Your task to perform on an android device: turn off wifi Image 0: 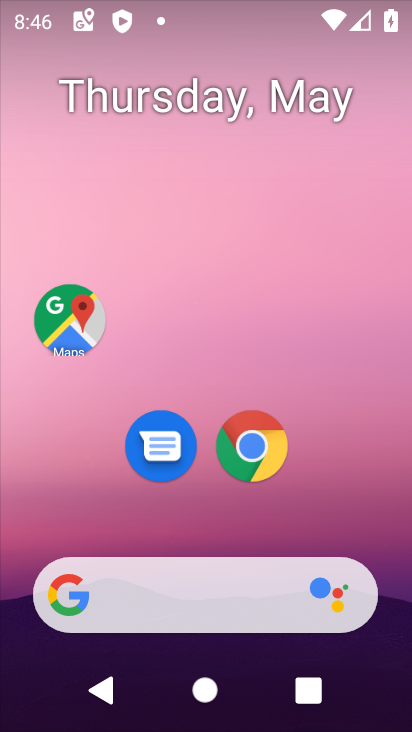
Step 0: drag from (398, 607) to (354, 13)
Your task to perform on an android device: turn off wifi Image 1: 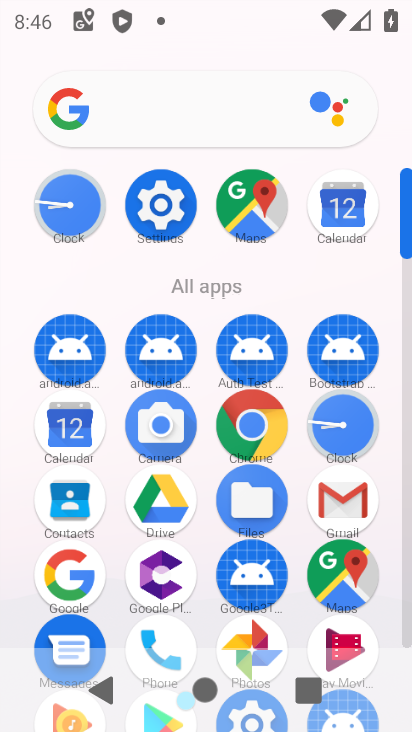
Step 1: click (408, 620)
Your task to perform on an android device: turn off wifi Image 2: 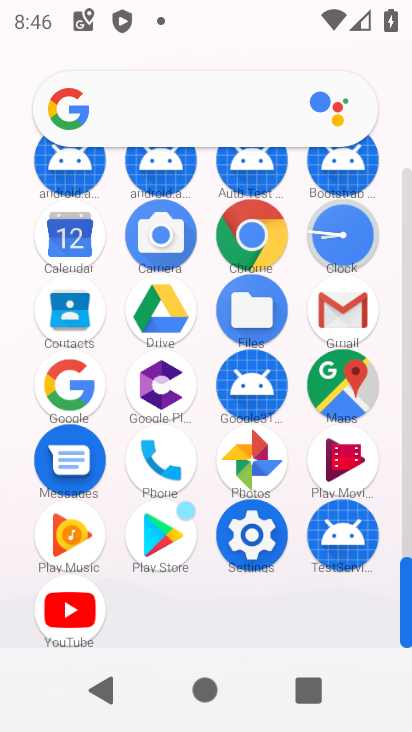
Step 2: click (250, 533)
Your task to perform on an android device: turn off wifi Image 3: 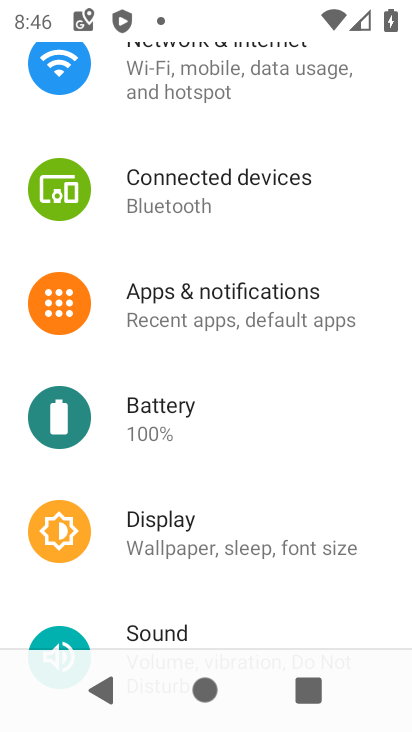
Step 3: drag from (338, 130) to (316, 563)
Your task to perform on an android device: turn off wifi Image 4: 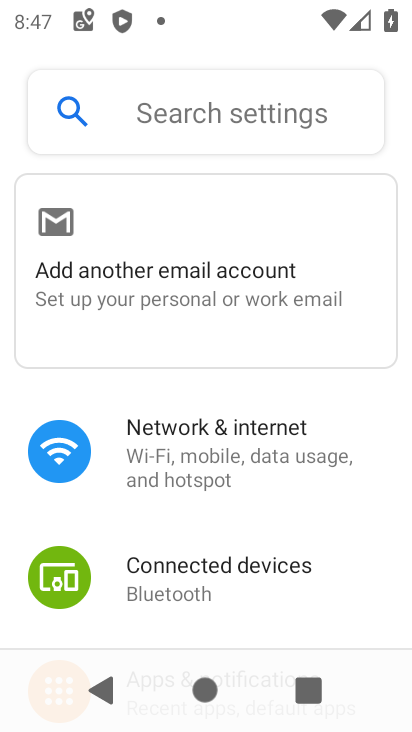
Step 4: click (172, 441)
Your task to perform on an android device: turn off wifi Image 5: 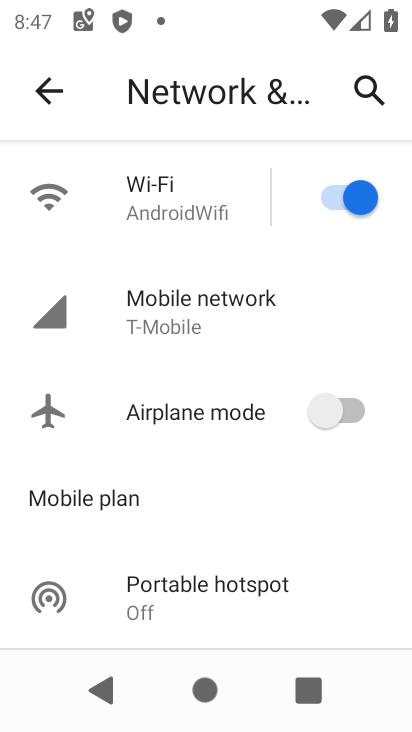
Step 5: click (327, 190)
Your task to perform on an android device: turn off wifi Image 6: 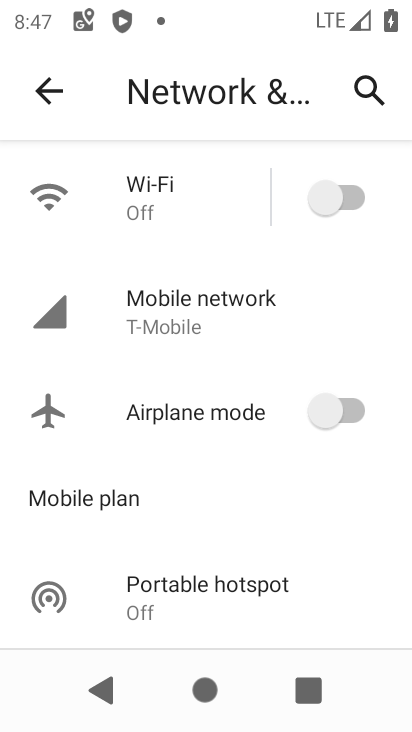
Step 6: task complete